Your task to perform on an android device: turn on translation in the chrome app Image 0: 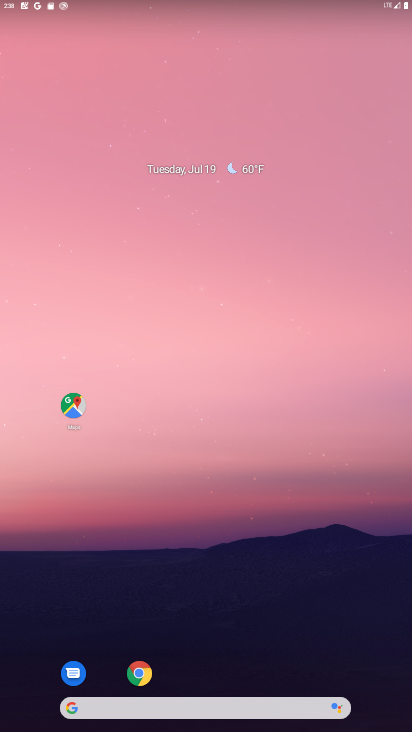
Step 0: click (143, 677)
Your task to perform on an android device: turn on translation in the chrome app Image 1: 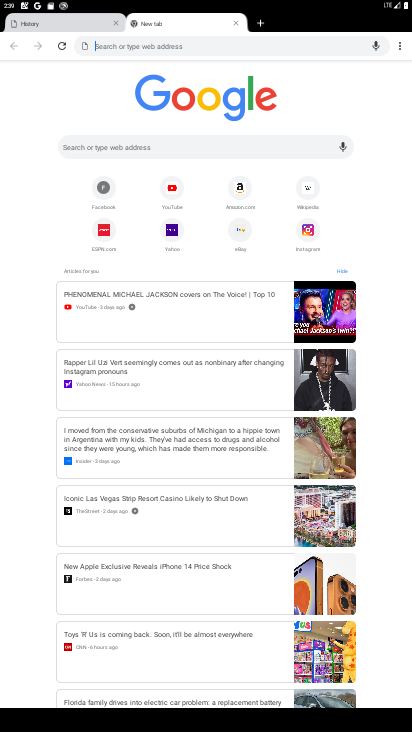
Step 1: click (396, 43)
Your task to perform on an android device: turn on translation in the chrome app Image 2: 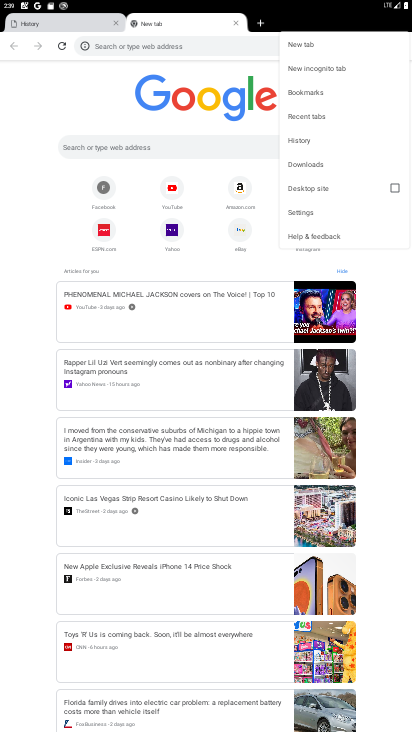
Step 2: click (321, 209)
Your task to perform on an android device: turn on translation in the chrome app Image 3: 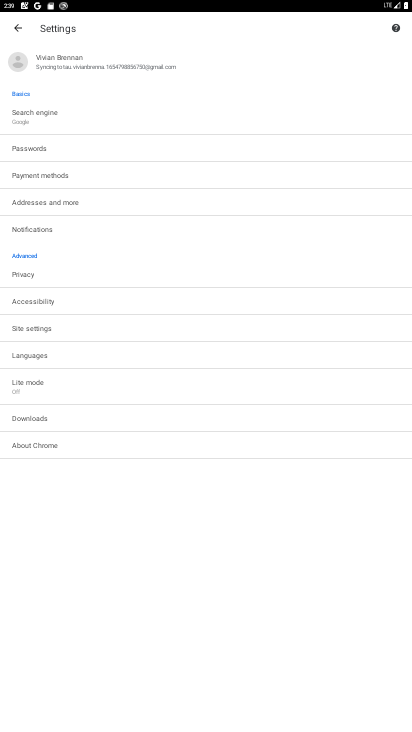
Step 3: click (51, 350)
Your task to perform on an android device: turn on translation in the chrome app Image 4: 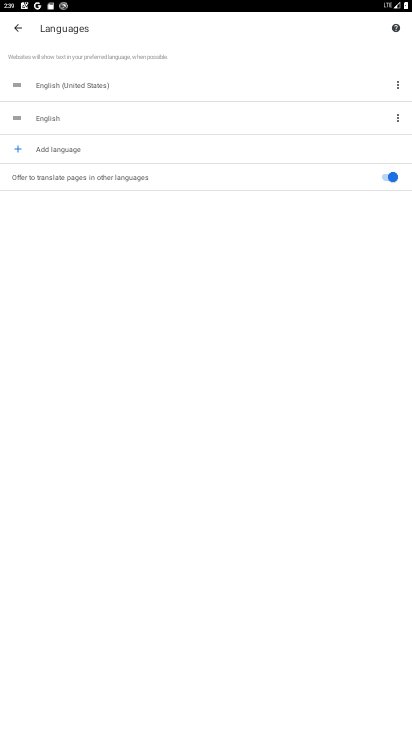
Step 4: task complete